Your task to perform on an android device: change alarm snooze length Image 0: 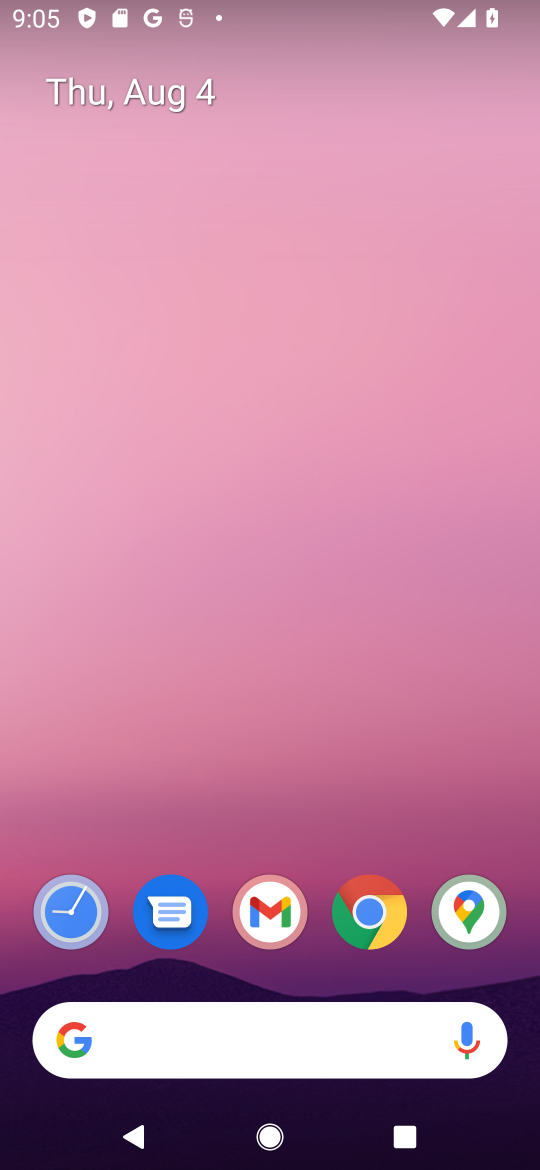
Step 0: drag from (482, 849) to (443, 292)
Your task to perform on an android device: change alarm snooze length Image 1: 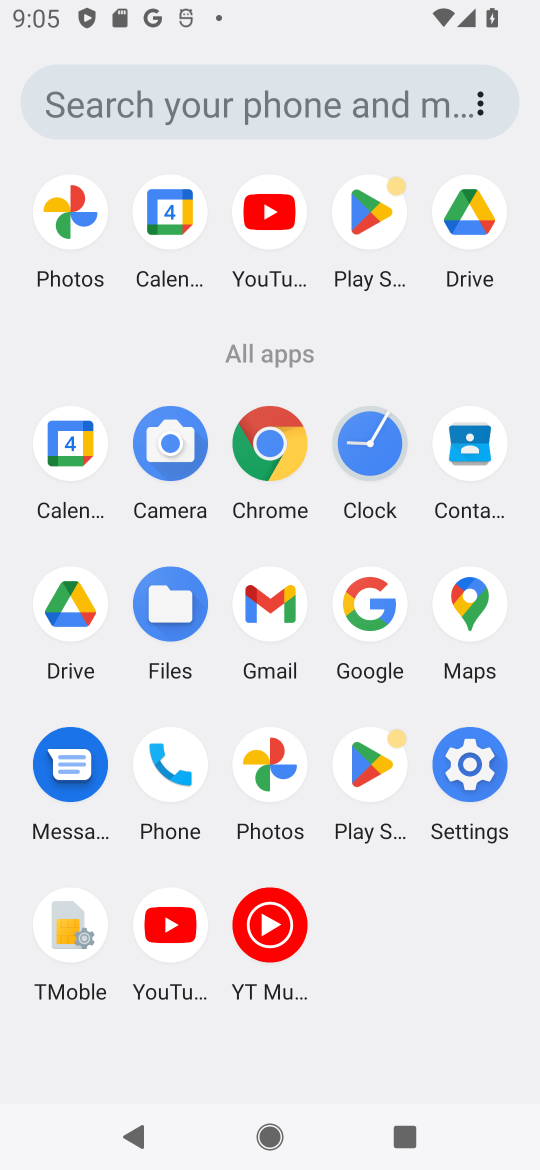
Step 1: click (379, 469)
Your task to perform on an android device: change alarm snooze length Image 2: 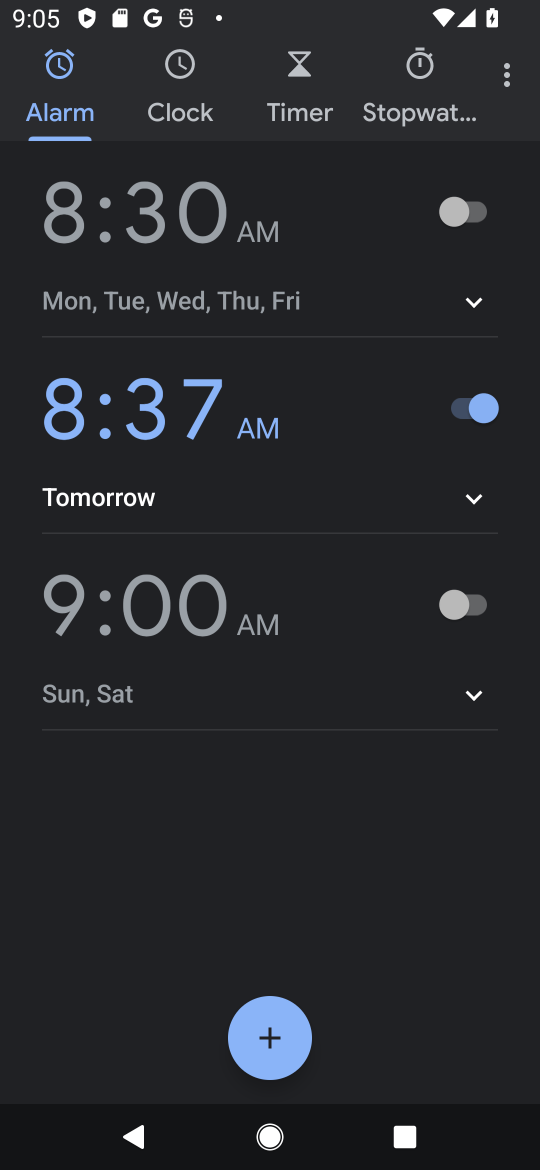
Step 2: click (493, 82)
Your task to perform on an android device: change alarm snooze length Image 3: 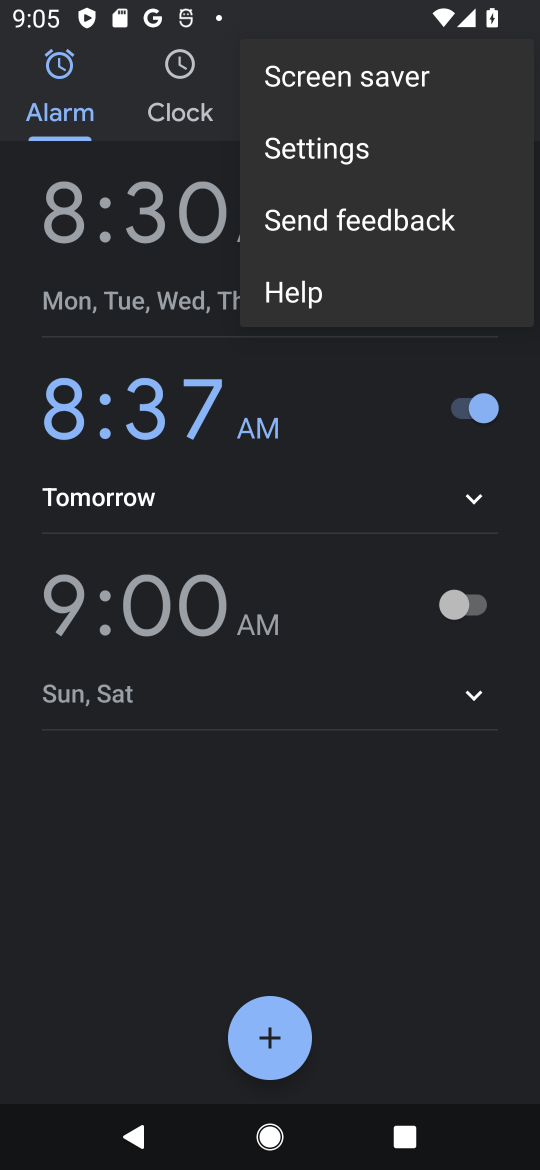
Step 3: click (406, 136)
Your task to perform on an android device: change alarm snooze length Image 4: 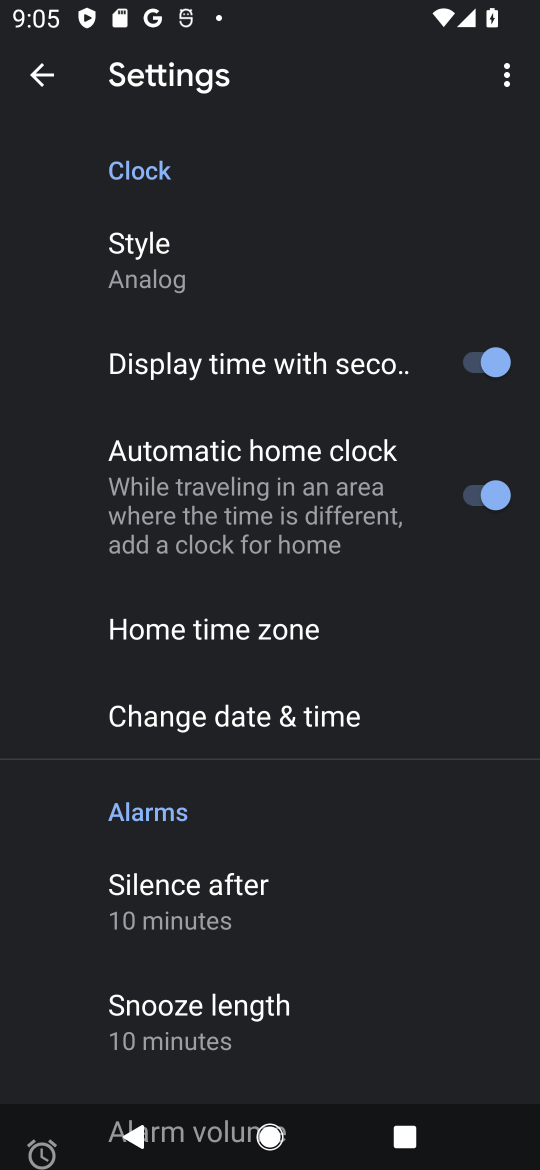
Step 4: click (366, 1019)
Your task to perform on an android device: change alarm snooze length Image 5: 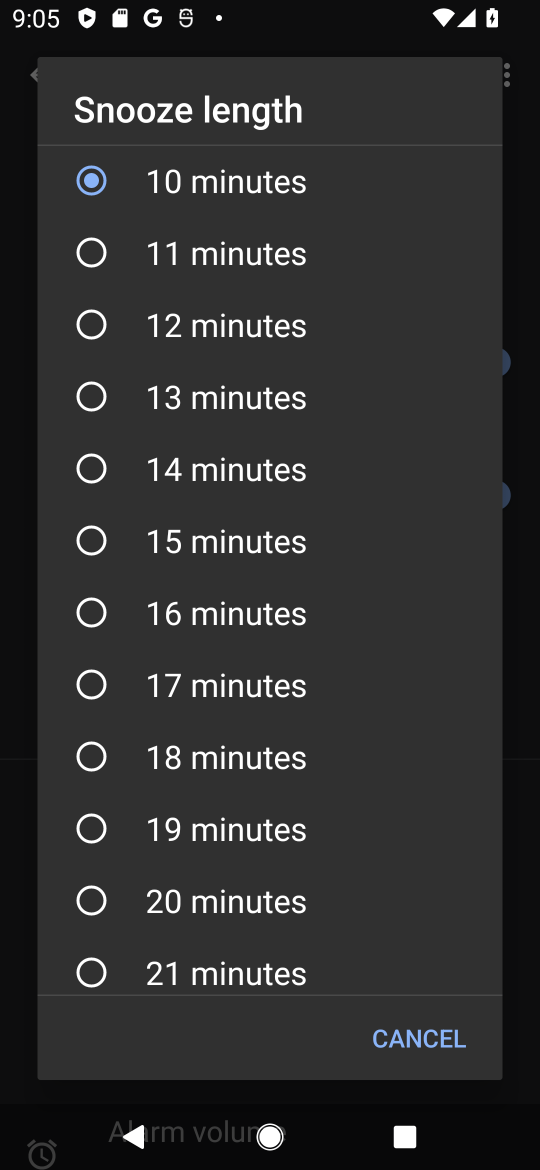
Step 5: click (264, 915)
Your task to perform on an android device: change alarm snooze length Image 6: 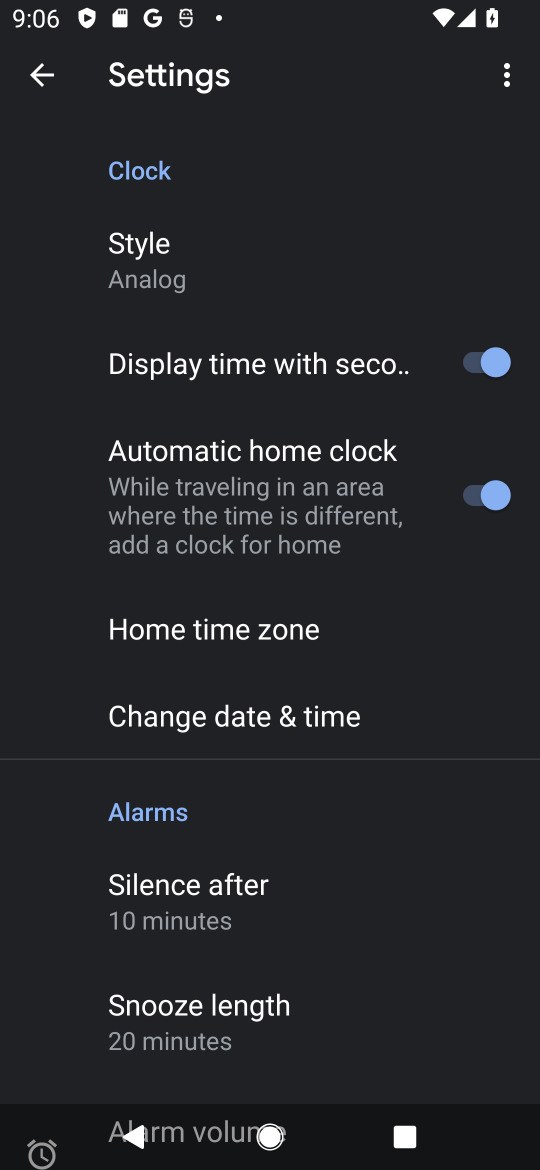
Step 6: task complete